Your task to perform on an android device: Is it going to rain today? Image 0: 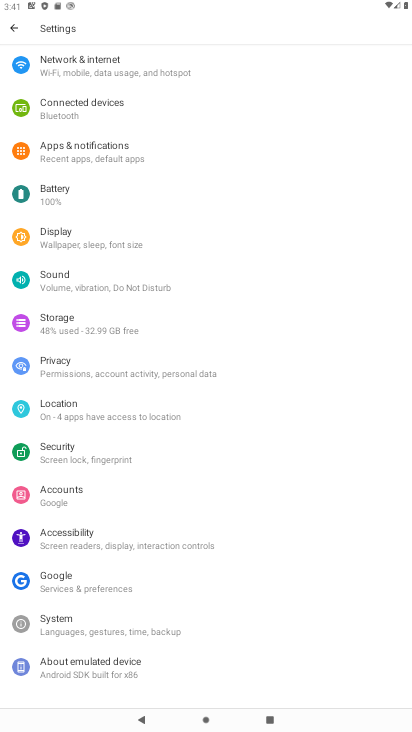
Step 0: press home button
Your task to perform on an android device: Is it going to rain today? Image 1: 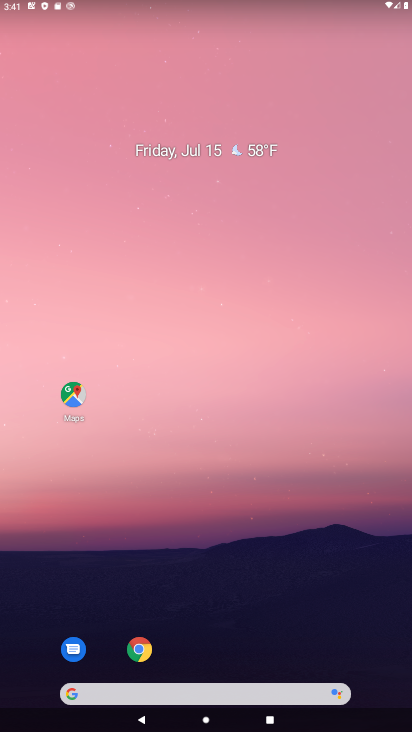
Step 1: drag from (232, 710) to (260, 213)
Your task to perform on an android device: Is it going to rain today? Image 2: 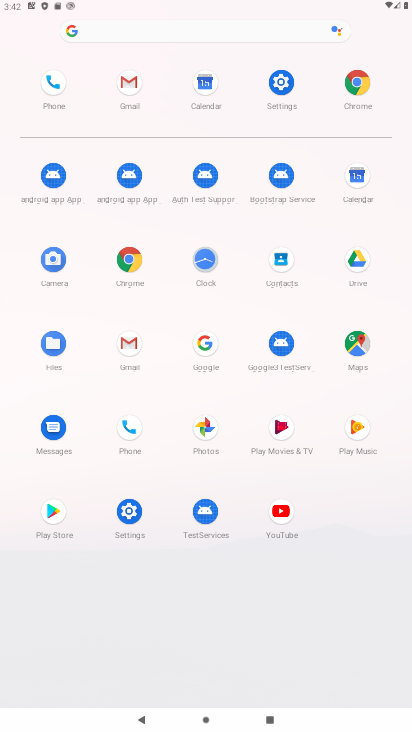
Step 2: click (208, 348)
Your task to perform on an android device: Is it going to rain today? Image 3: 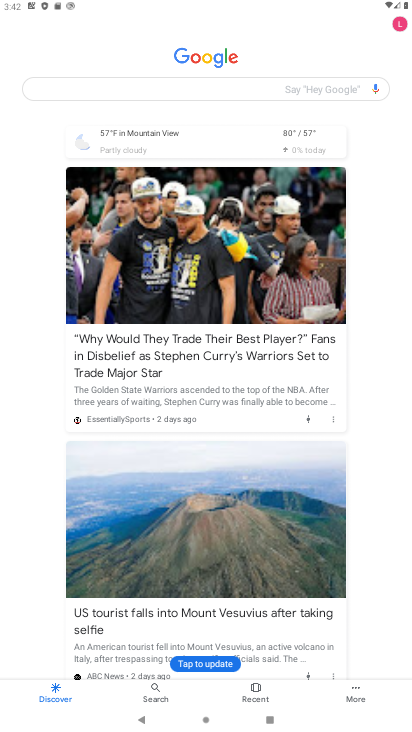
Step 3: click (135, 143)
Your task to perform on an android device: Is it going to rain today? Image 4: 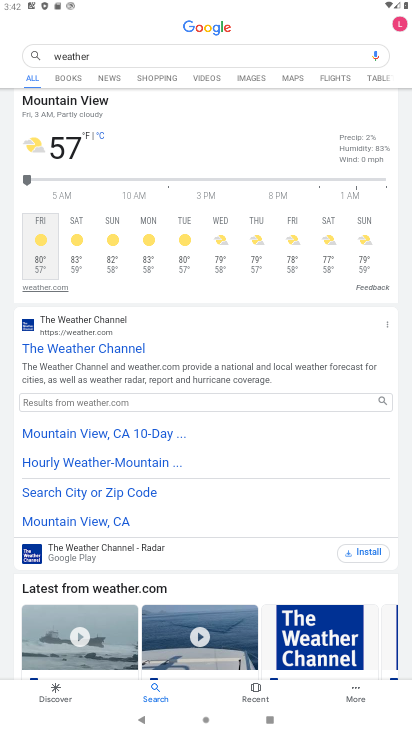
Step 4: task complete